Your task to perform on an android device: Go to Google Image 0: 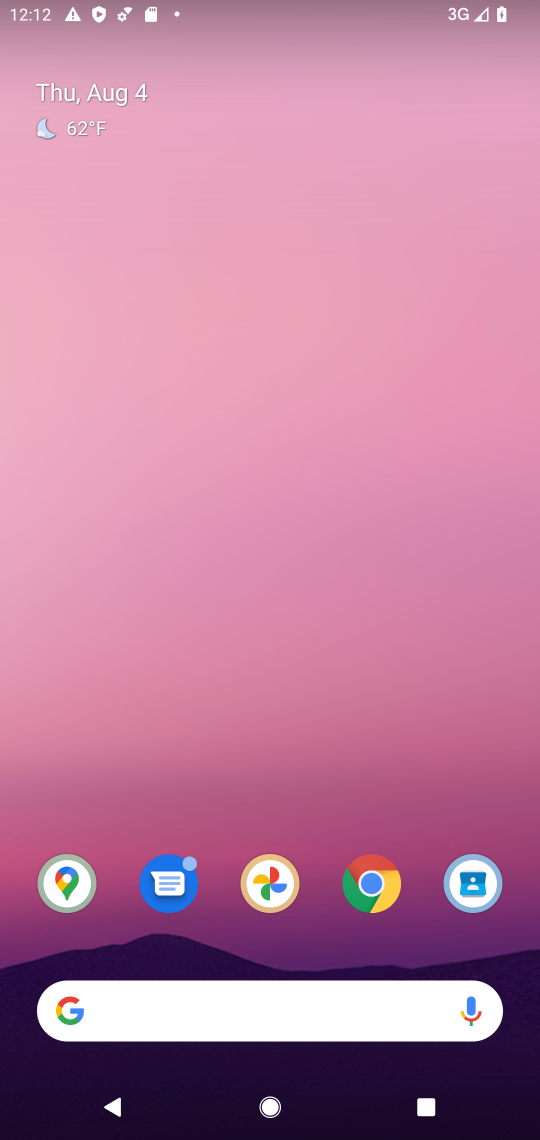
Step 0: drag from (275, 946) to (324, 483)
Your task to perform on an android device: Go to Google Image 1: 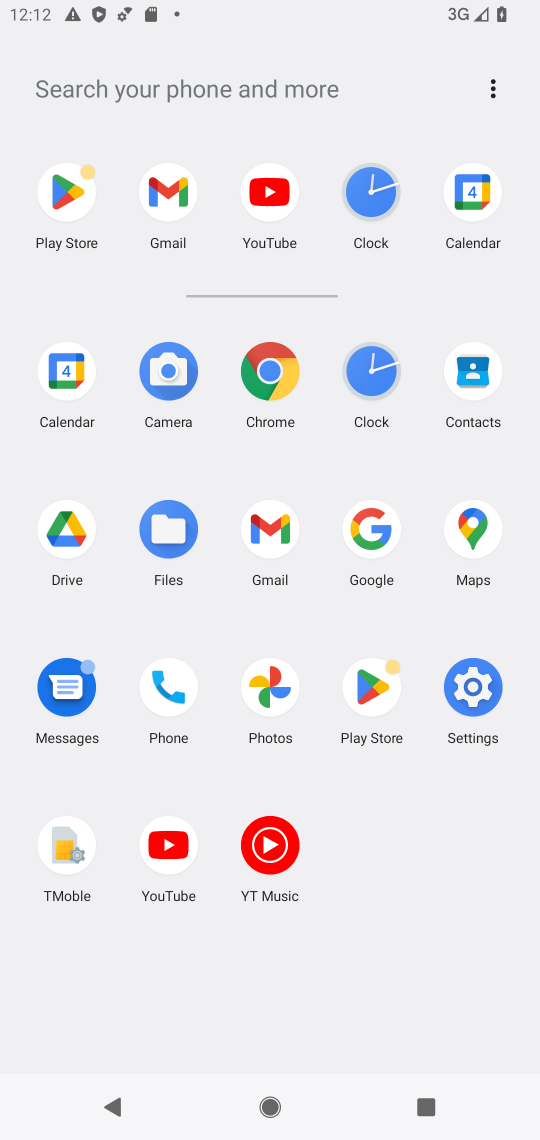
Step 1: click (376, 555)
Your task to perform on an android device: Go to Google Image 2: 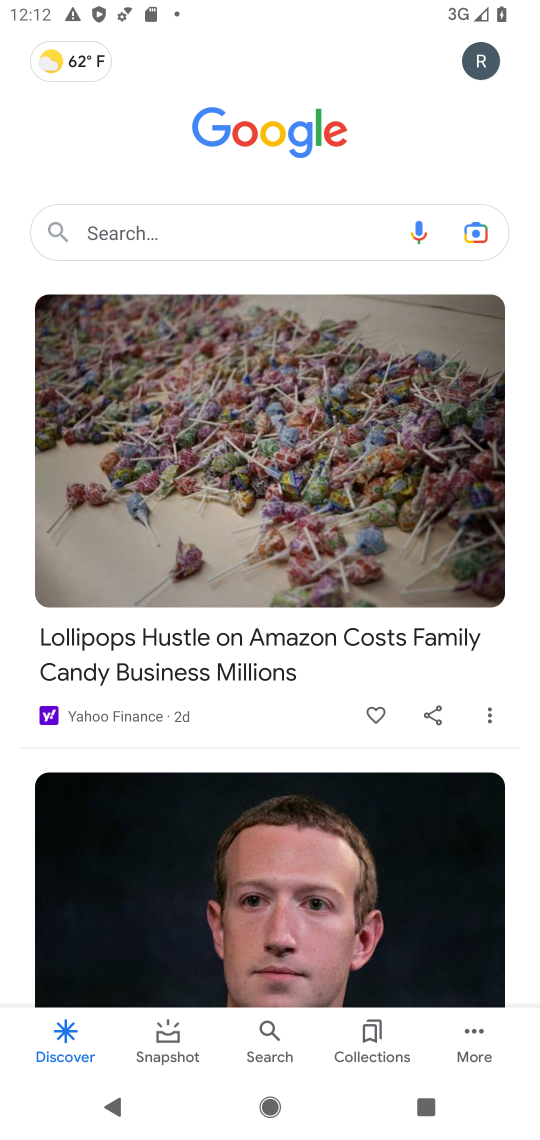
Step 2: task complete